Your task to perform on an android device: Go to calendar. Show me events next week Image 0: 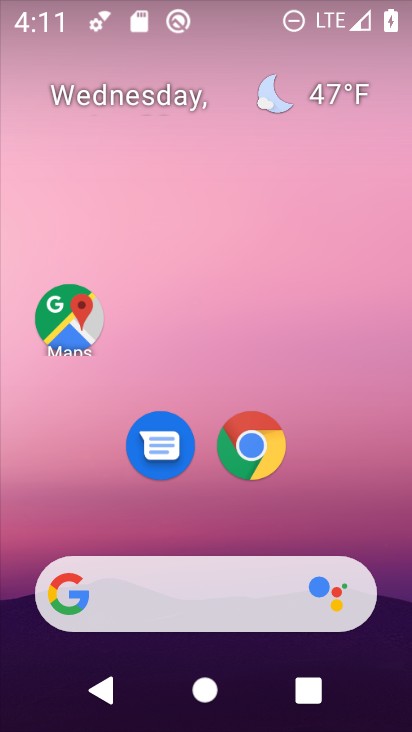
Step 0: drag from (304, 528) to (337, 76)
Your task to perform on an android device: Go to calendar. Show me events next week Image 1: 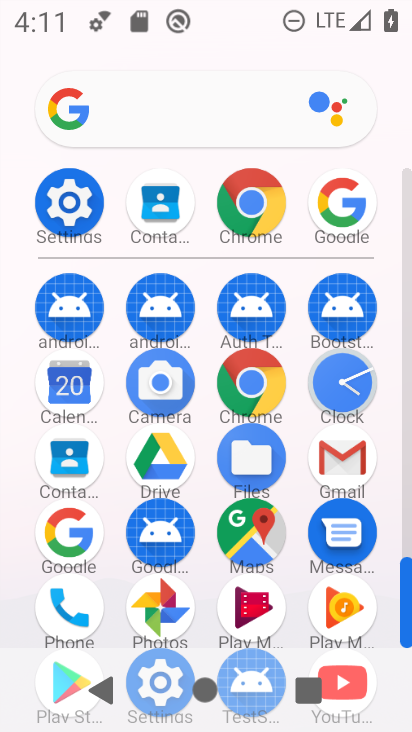
Step 1: click (73, 382)
Your task to perform on an android device: Go to calendar. Show me events next week Image 2: 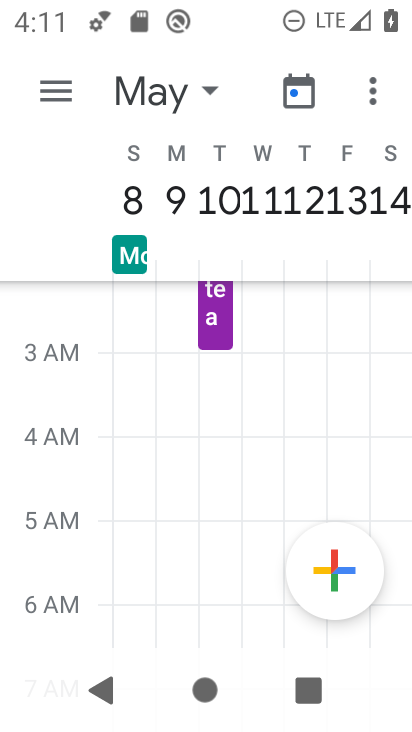
Step 2: click (298, 94)
Your task to perform on an android device: Go to calendar. Show me events next week Image 3: 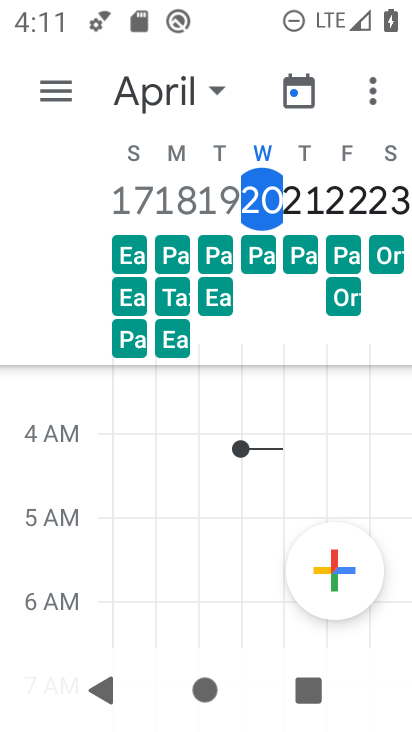
Step 3: click (200, 88)
Your task to perform on an android device: Go to calendar. Show me events next week Image 4: 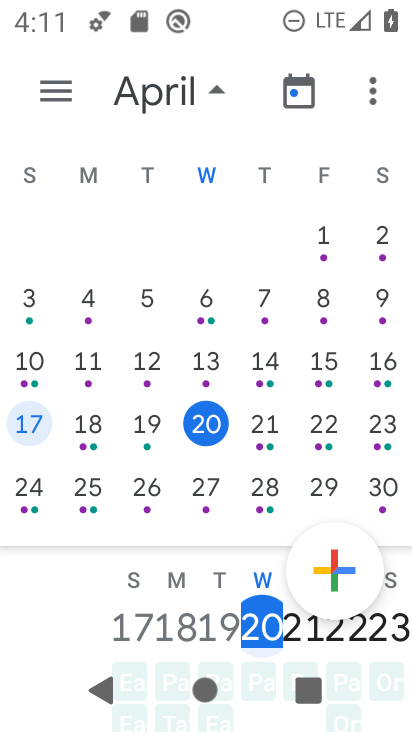
Step 4: click (98, 487)
Your task to perform on an android device: Go to calendar. Show me events next week Image 5: 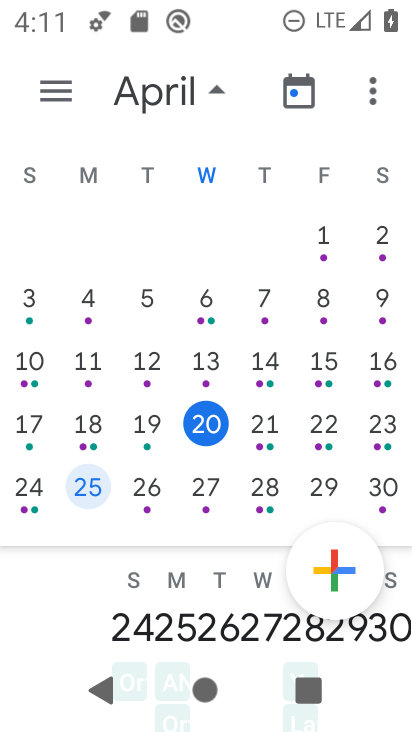
Step 5: click (49, 92)
Your task to perform on an android device: Go to calendar. Show me events next week Image 6: 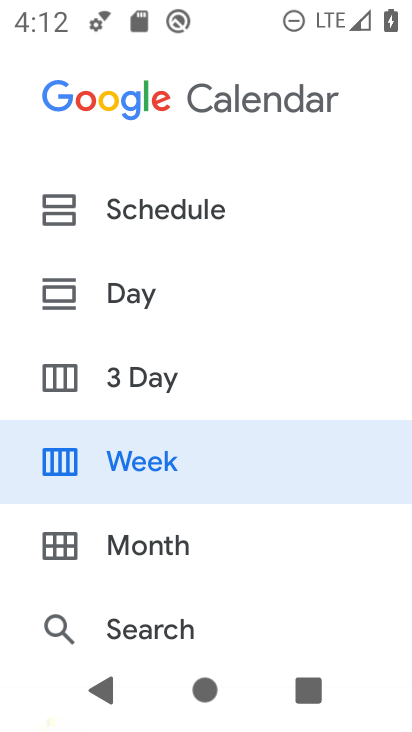
Step 6: click (116, 450)
Your task to perform on an android device: Go to calendar. Show me events next week Image 7: 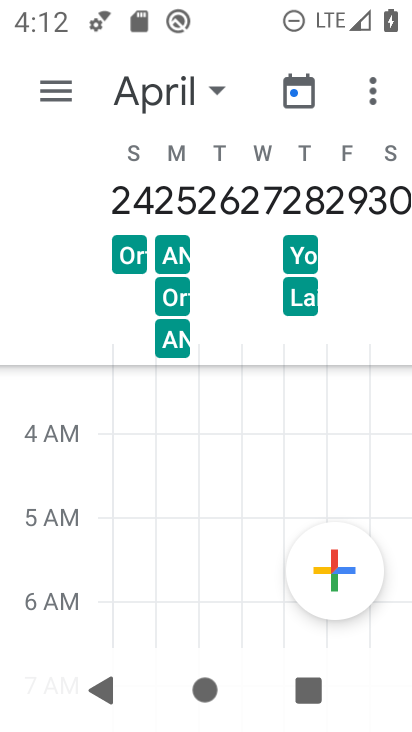
Step 7: task complete